Your task to perform on an android device: find snoozed emails in the gmail app Image 0: 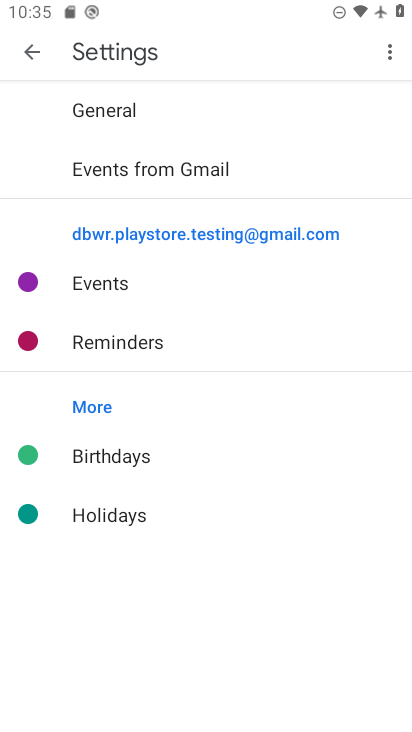
Step 0: press home button
Your task to perform on an android device: find snoozed emails in the gmail app Image 1: 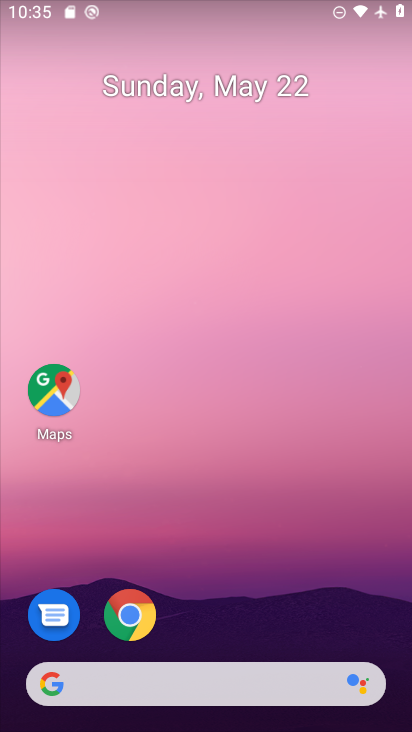
Step 1: drag from (255, 607) to (283, 15)
Your task to perform on an android device: find snoozed emails in the gmail app Image 2: 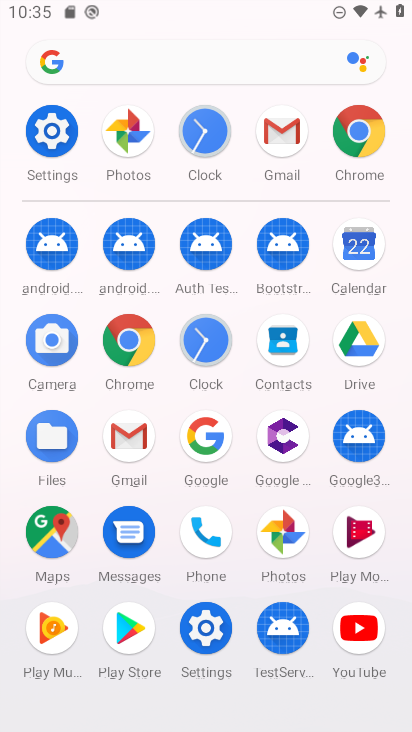
Step 2: click (280, 129)
Your task to perform on an android device: find snoozed emails in the gmail app Image 3: 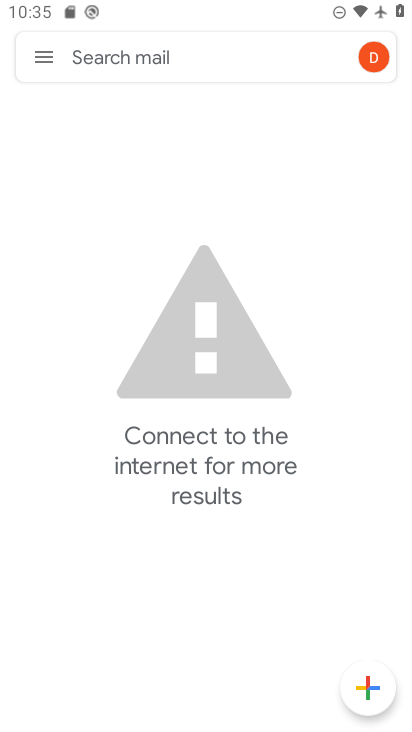
Step 3: click (46, 51)
Your task to perform on an android device: find snoozed emails in the gmail app Image 4: 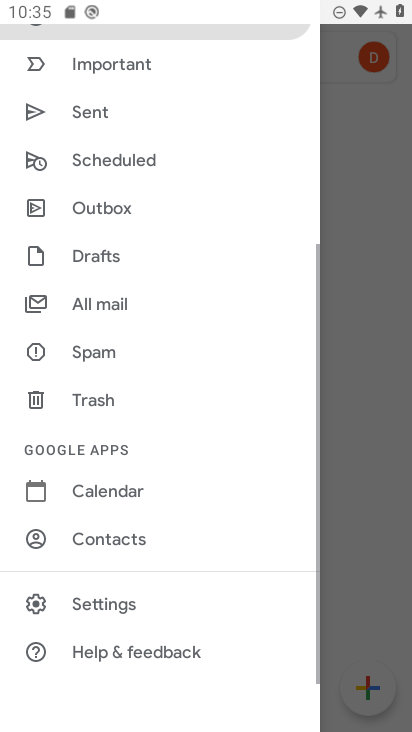
Step 4: click (135, 601)
Your task to perform on an android device: find snoozed emails in the gmail app Image 5: 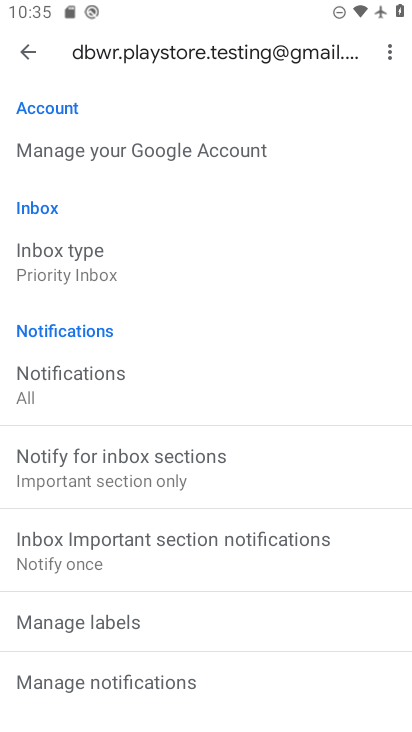
Step 5: click (25, 53)
Your task to perform on an android device: find snoozed emails in the gmail app Image 6: 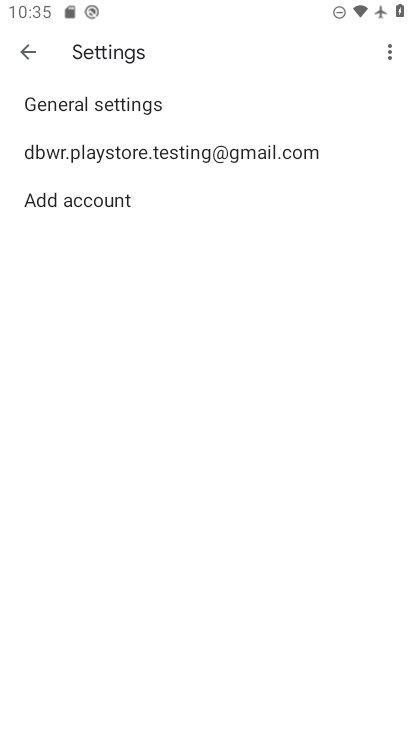
Step 6: click (25, 53)
Your task to perform on an android device: find snoozed emails in the gmail app Image 7: 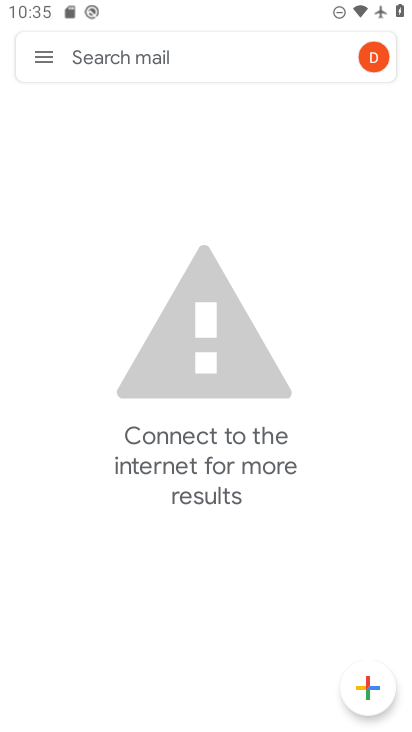
Step 7: click (25, 53)
Your task to perform on an android device: find snoozed emails in the gmail app Image 8: 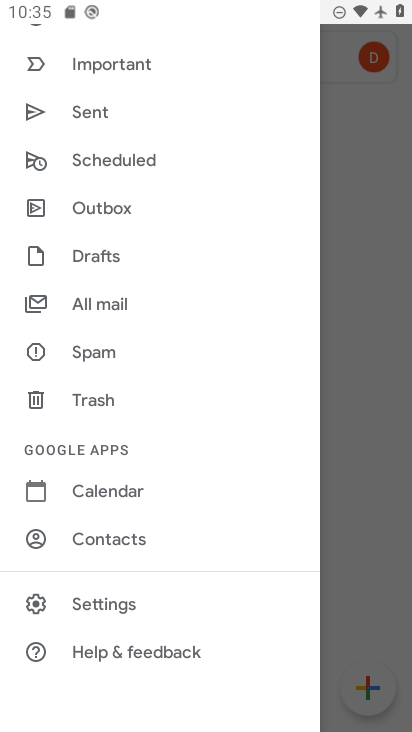
Step 8: drag from (136, 331) to (143, 606)
Your task to perform on an android device: find snoozed emails in the gmail app Image 9: 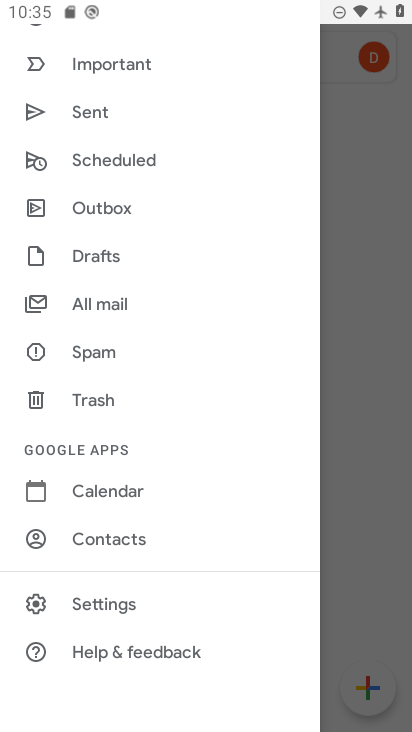
Step 9: drag from (154, 147) to (165, 575)
Your task to perform on an android device: find snoozed emails in the gmail app Image 10: 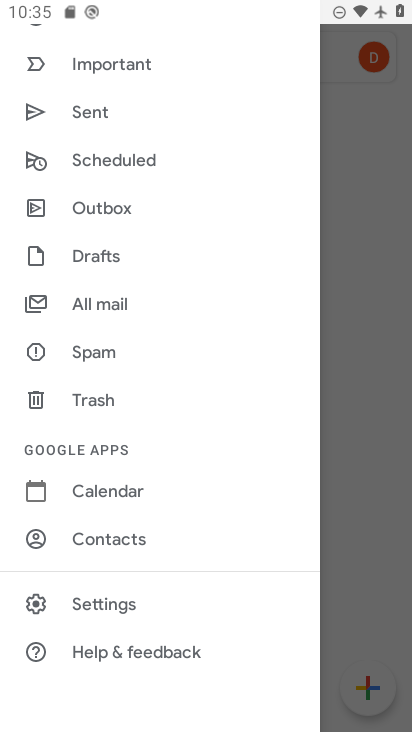
Step 10: drag from (101, 162) to (89, 528)
Your task to perform on an android device: find snoozed emails in the gmail app Image 11: 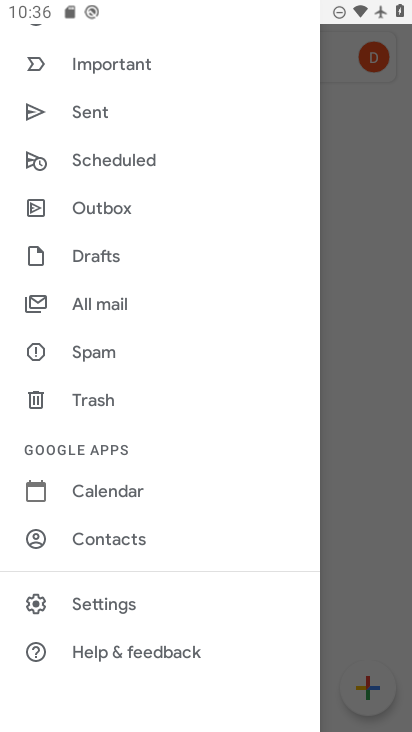
Step 11: drag from (183, 143) to (160, 627)
Your task to perform on an android device: find snoozed emails in the gmail app Image 12: 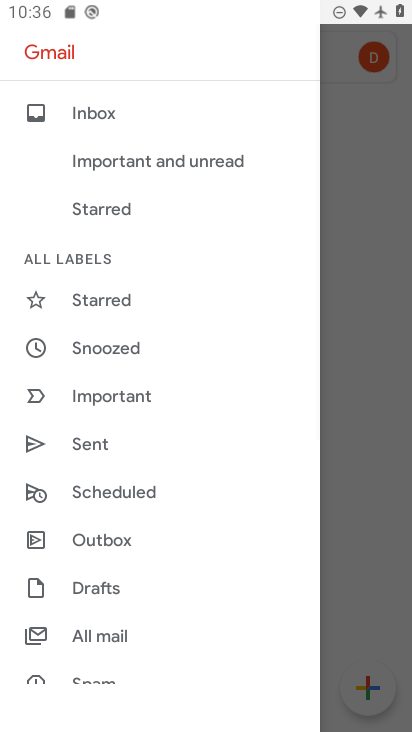
Step 12: click (109, 344)
Your task to perform on an android device: find snoozed emails in the gmail app Image 13: 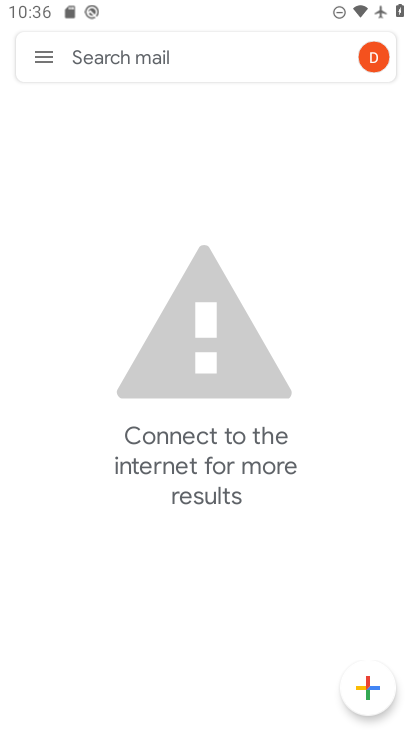
Step 13: task complete